Your task to perform on an android device: When is my next appointment? Image 0: 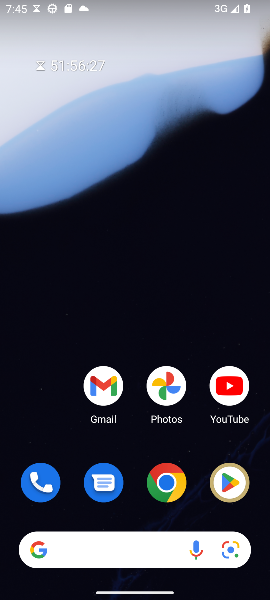
Step 0: drag from (130, 498) to (157, 69)
Your task to perform on an android device: When is my next appointment? Image 1: 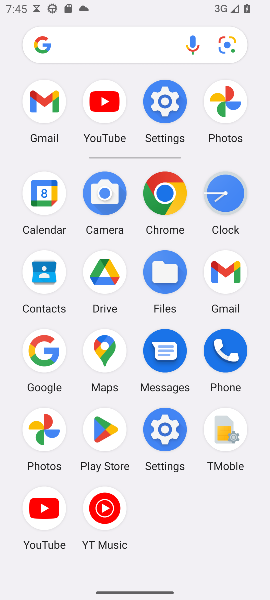
Step 1: click (38, 195)
Your task to perform on an android device: When is my next appointment? Image 2: 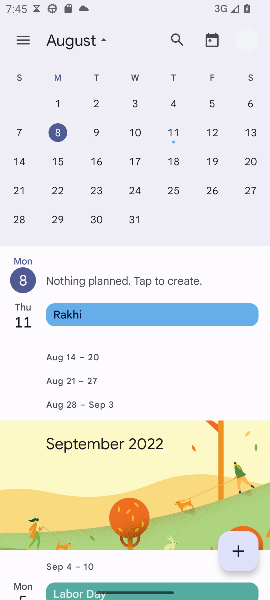
Step 2: task complete